Your task to perform on an android device: manage bookmarks in the chrome app Image 0: 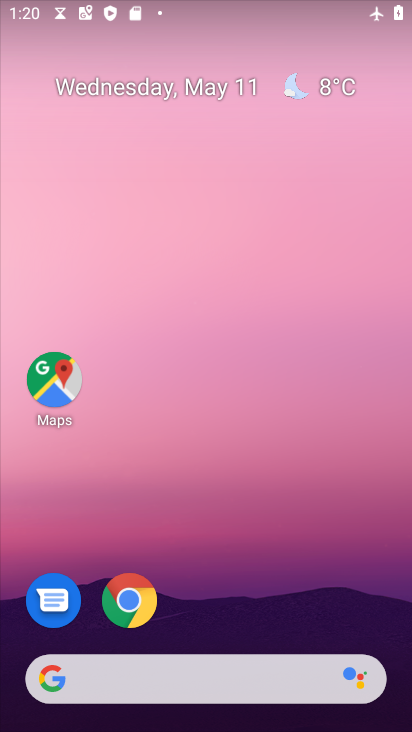
Step 0: click (134, 590)
Your task to perform on an android device: manage bookmarks in the chrome app Image 1: 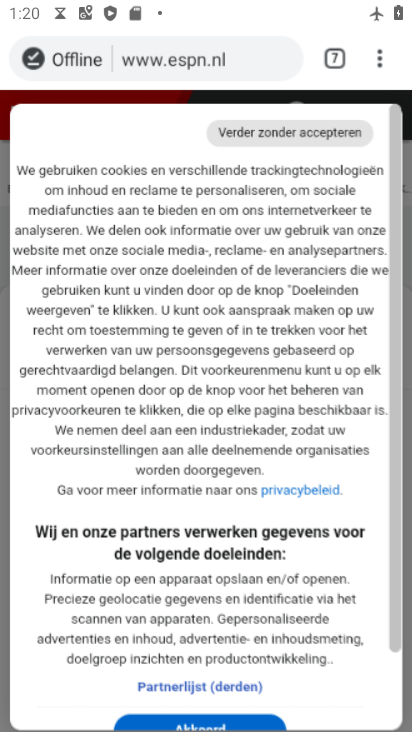
Step 1: click (378, 64)
Your task to perform on an android device: manage bookmarks in the chrome app Image 2: 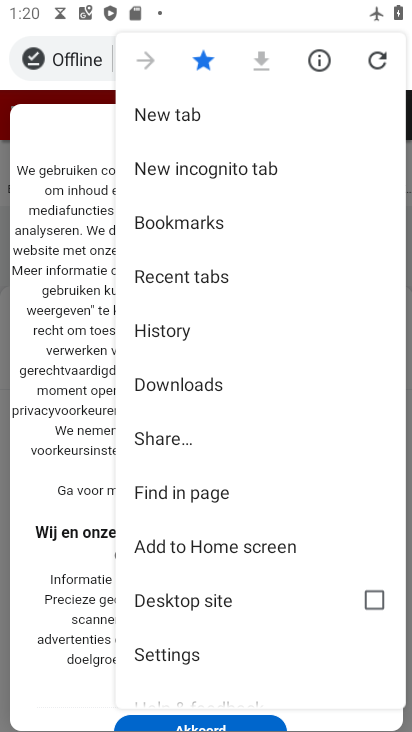
Step 2: click (214, 224)
Your task to perform on an android device: manage bookmarks in the chrome app Image 3: 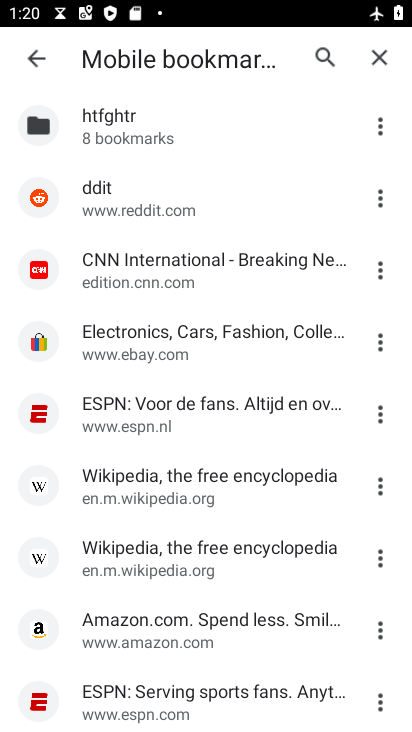
Step 3: click (380, 344)
Your task to perform on an android device: manage bookmarks in the chrome app Image 4: 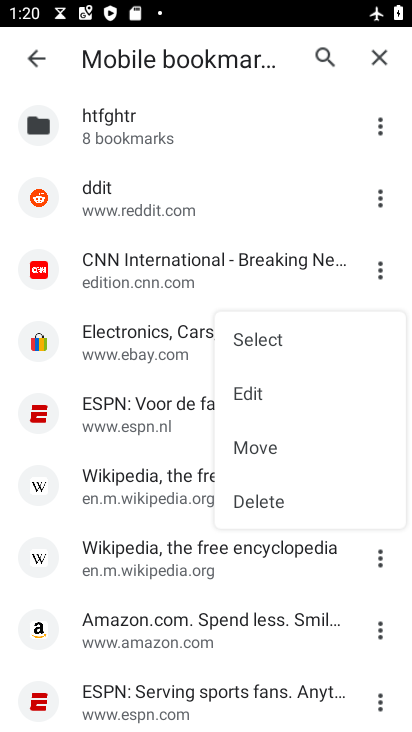
Step 4: click (285, 493)
Your task to perform on an android device: manage bookmarks in the chrome app Image 5: 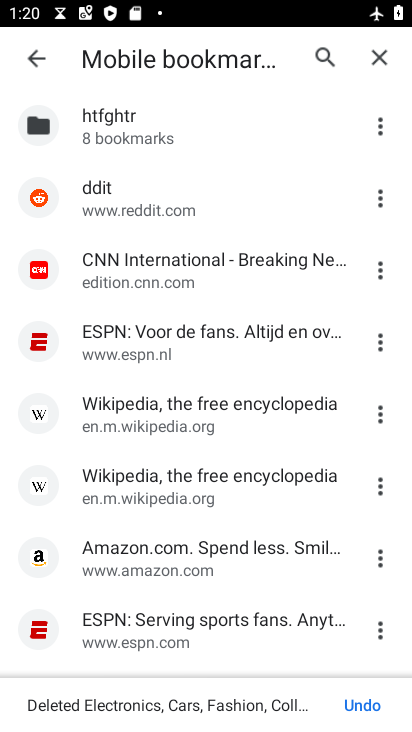
Step 5: task complete